Your task to perform on an android device: Clear the shopping cart on target. Add dell alienware to the cart on target, then select checkout. Image 0: 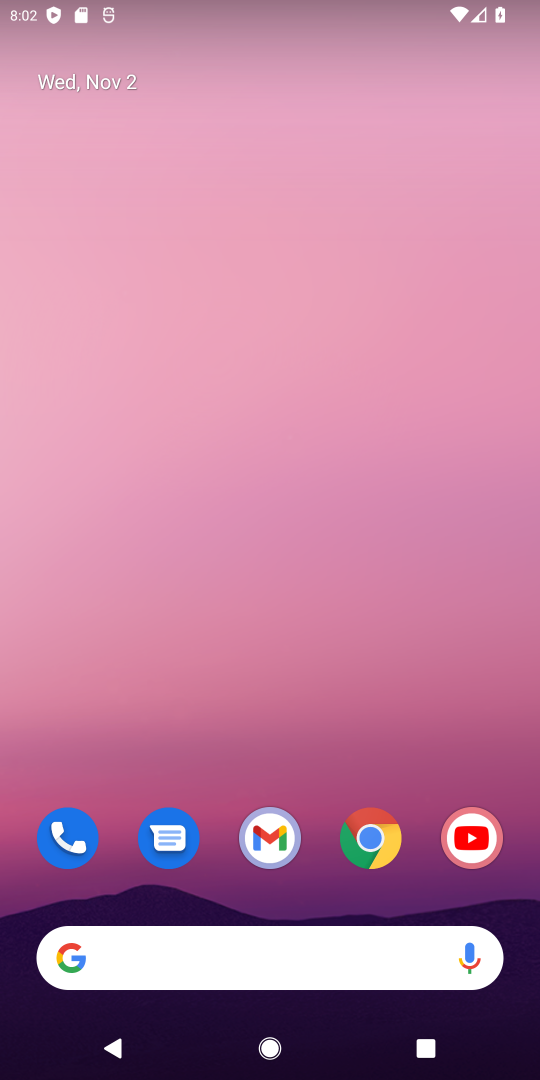
Step 0: click (374, 834)
Your task to perform on an android device: Clear the shopping cart on target. Add dell alienware to the cart on target, then select checkout. Image 1: 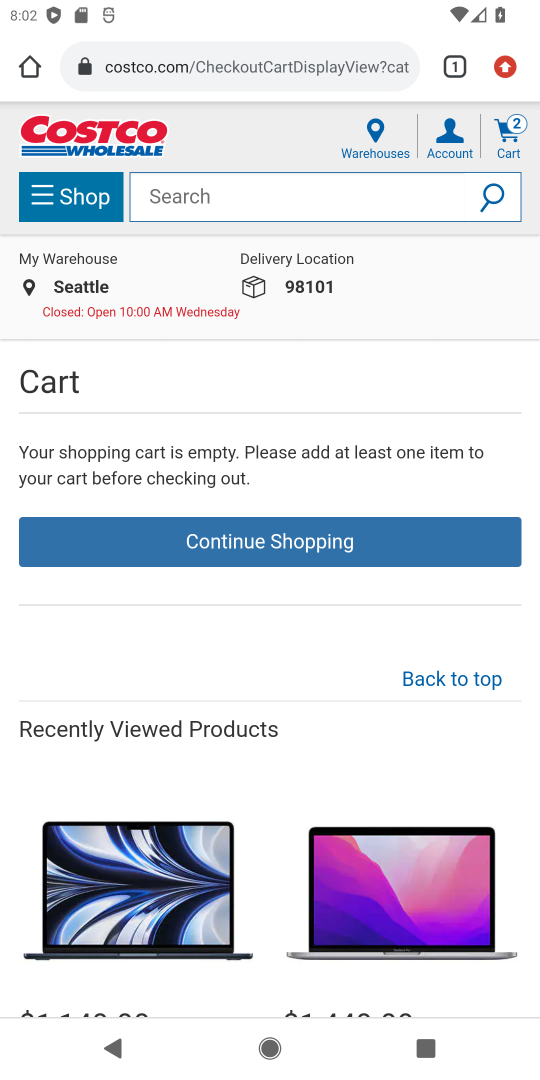
Step 1: click (261, 59)
Your task to perform on an android device: Clear the shopping cart on target. Add dell alienware to the cart on target, then select checkout. Image 2: 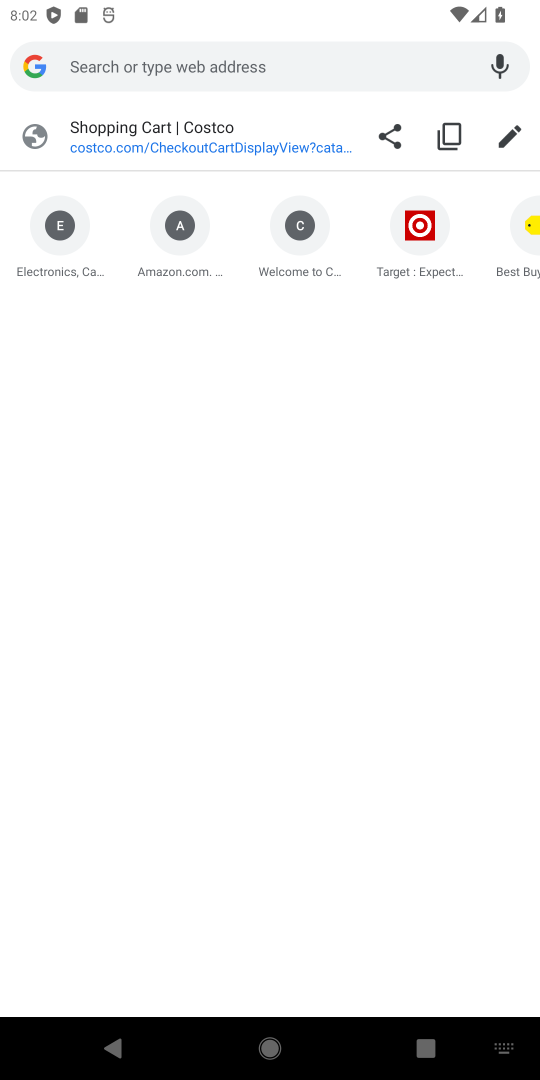
Step 2: type "target"
Your task to perform on an android device: Clear the shopping cart on target. Add dell alienware to the cart on target, then select checkout. Image 3: 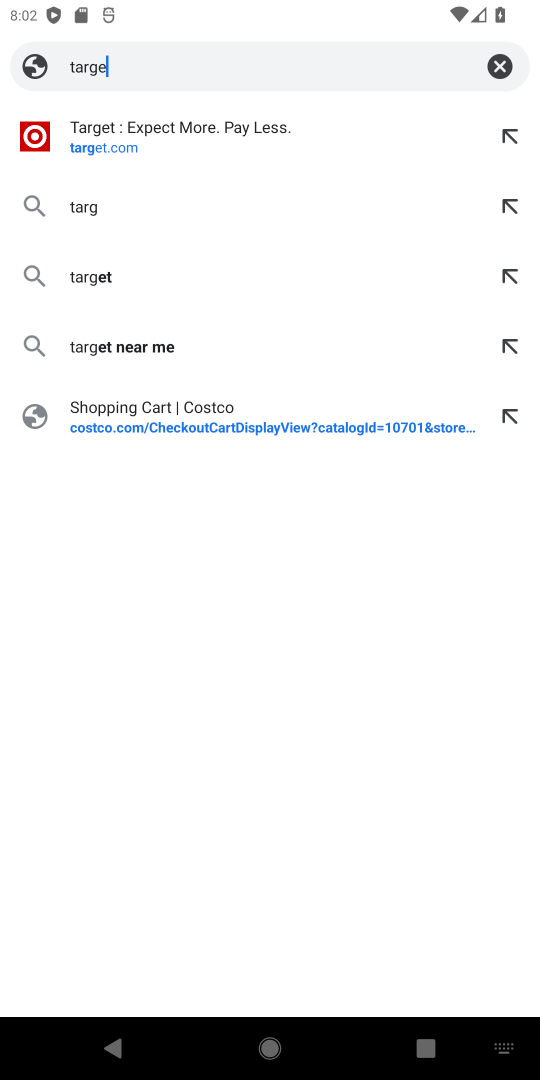
Step 3: type ""
Your task to perform on an android device: Clear the shopping cart on target. Add dell alienware to the cart on target, then select checkout. Image 4: 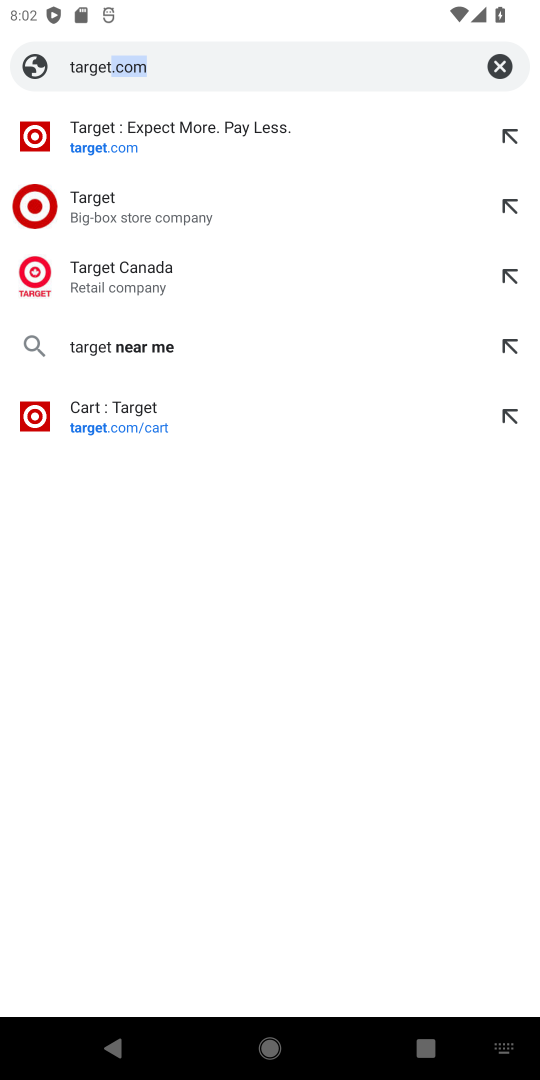
Step 4: press enter
Your task to perform on an android device: Clear the shopping cart on target. Add dell alienware to the cart on target, then select checkout. Image 5: 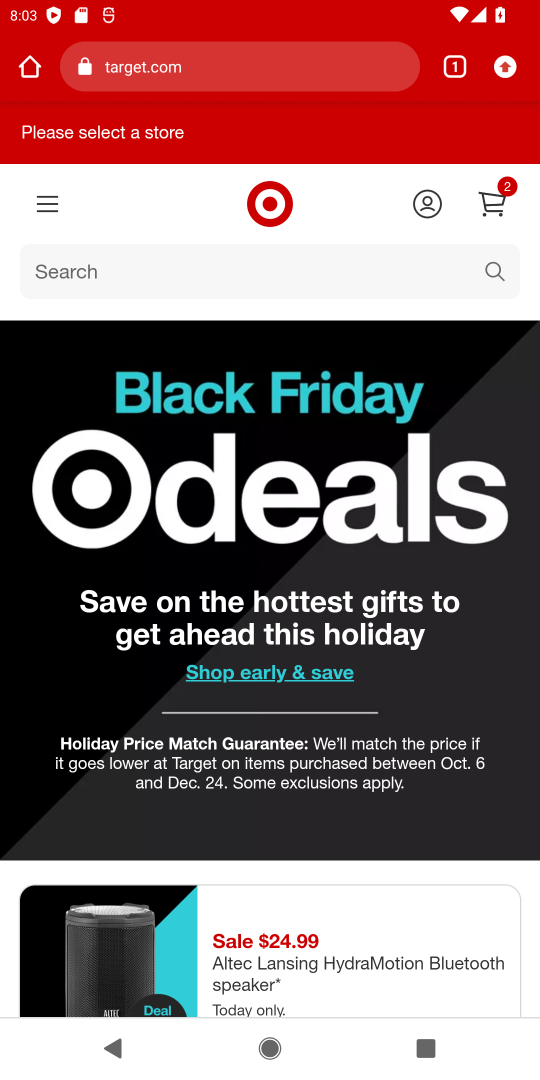
Step 5: click (498, 186)
Your task to perform on an android device: Clear the shopping cart on target. Add dell alienware to the cart on target, then select checkout. Image 6: 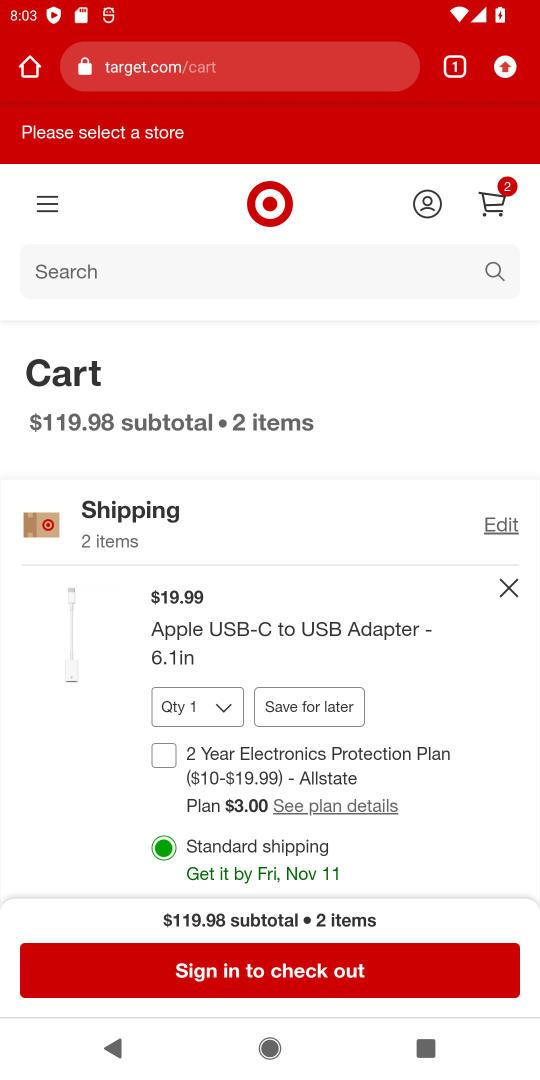
Step 6: click (511, 586)
Your task to perform on an android device: Clear the shopping cart on target. Add dell alienware to the cart on target, then select checkout. Image 7: 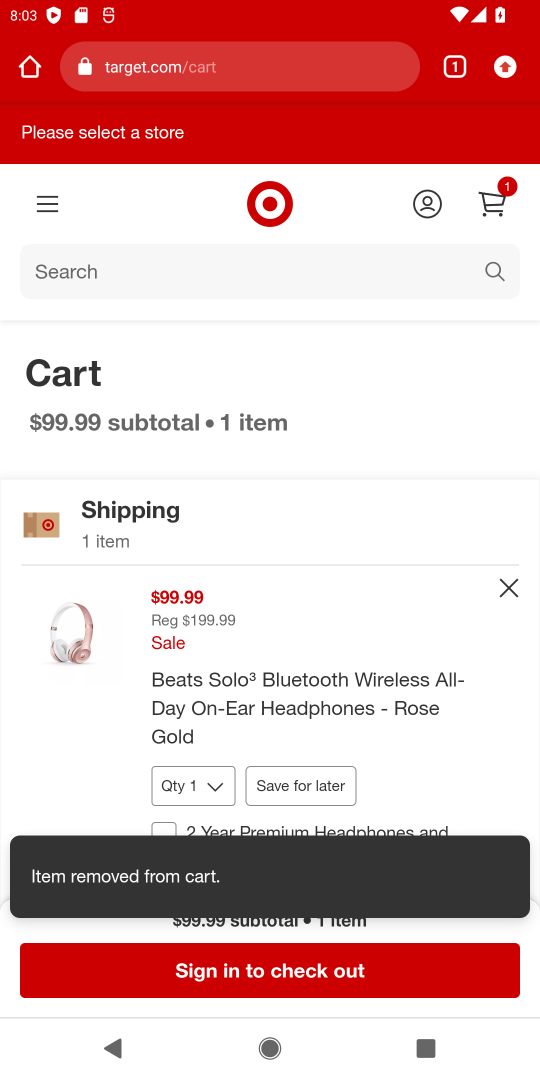
Step 7: click (511, 586)
Your task to perform on an android device: Clear the shopping cart on target. Add dell alienware to the cart on target, then select checkout. Image 8: 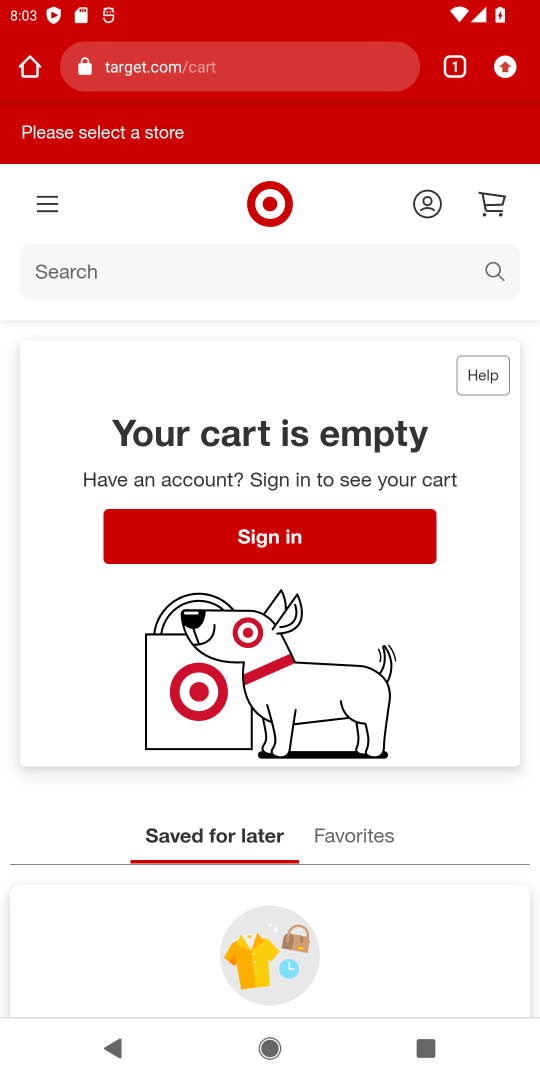
Step 8: click (212, 286)
Your task to perform on an android device: Clear the shopping cart on target. Add dell alienware to the cart on target, then select checkout. Image 9: 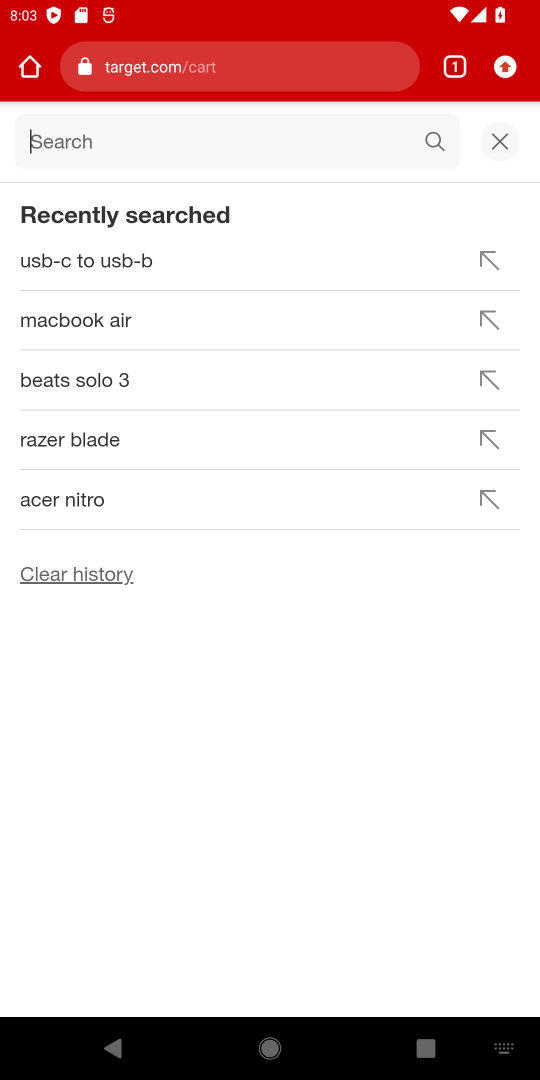
Step 9: type "dell alienware"
Your task to perform on an android device: Clear the shopping cart on target. Add dell alienware to the cart on target, then select checkout. Image 10: 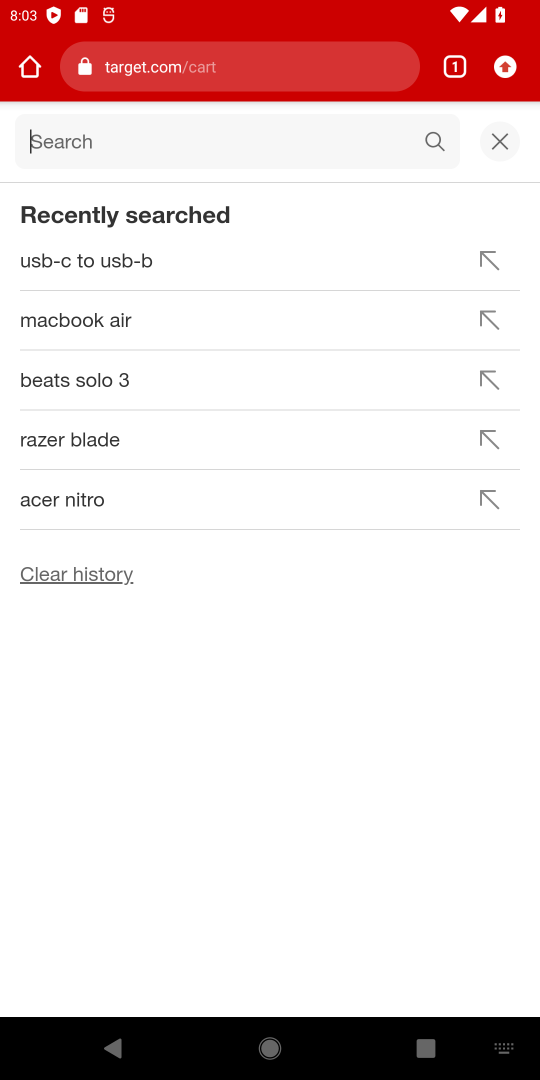
Step 10: type ""
Your task to perform on an android device: Clear the shopping cart on target. Add dell alienware to the cart on target, then select checkout. Image 11: 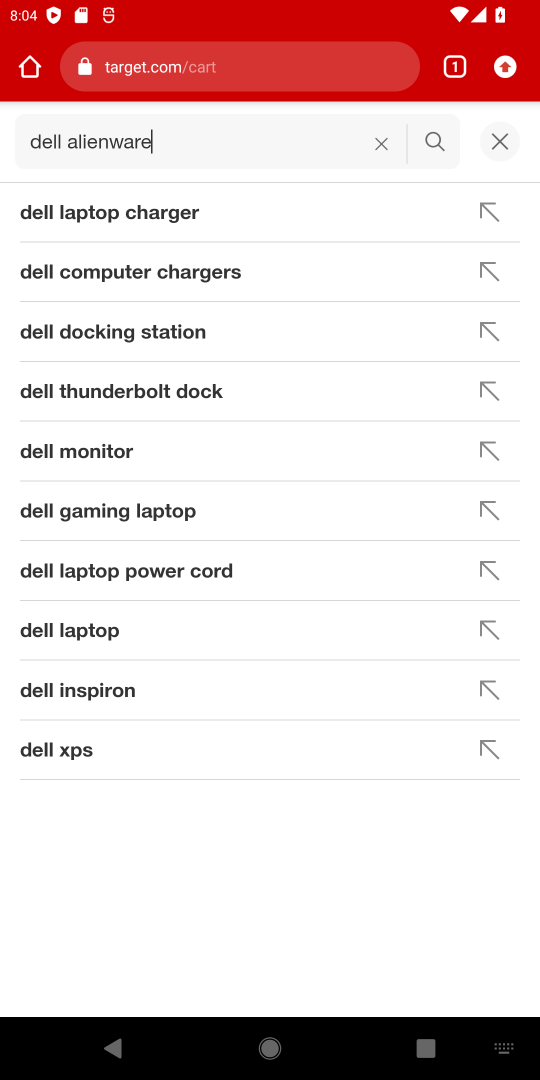
Step 11: press enter
Your task to perform on an android device: Clear the shopping cart on target. Add dell alienware to the cart on target, then select checkout. Image 12: 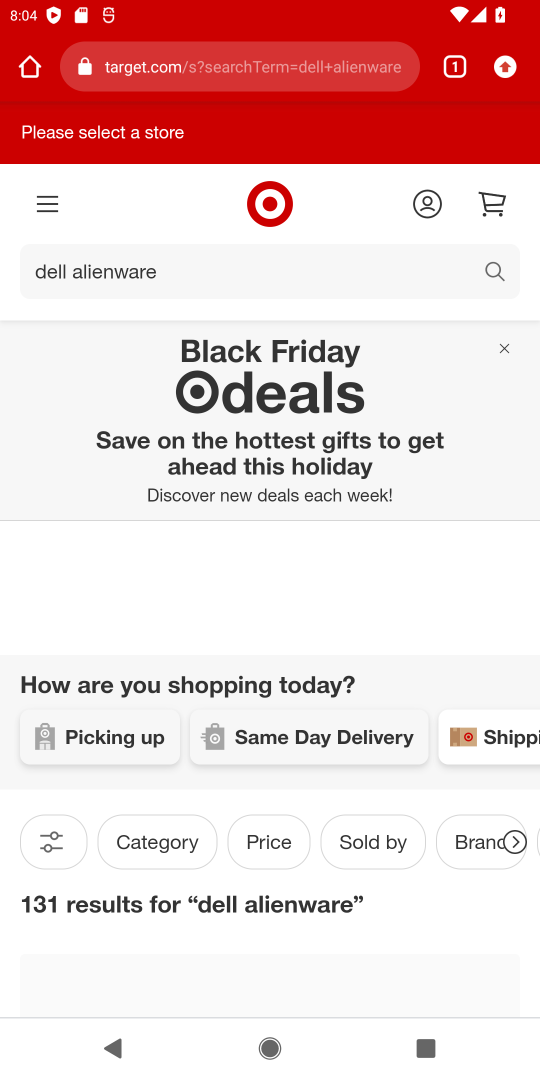
Step 12: task complete